Your task to perform on an android device: Is it going to rain tomorrow? Image 0: 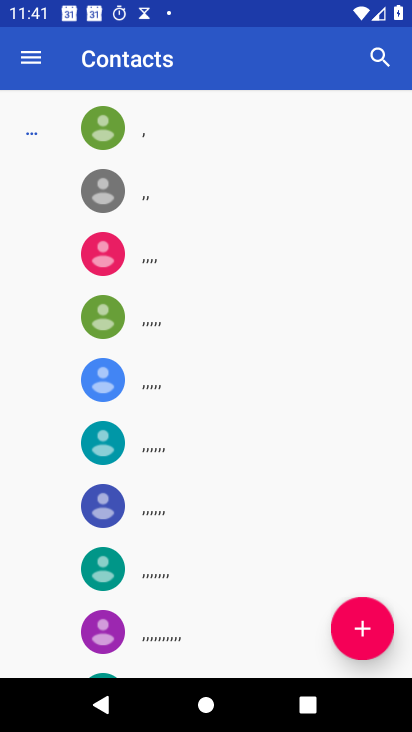
Step 0: press home button
Your task to perform on an android device: Is it going to rain tomorrow? Image 1: 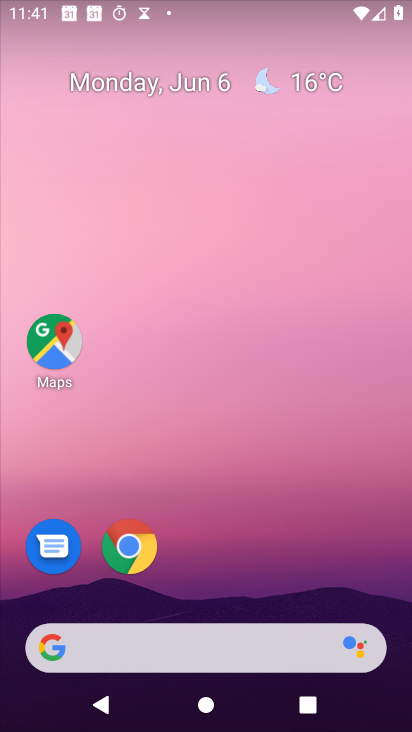
Step 1: click (291, 84)
Your task to perform on an android device: Is it going to rain tomorrow? Image 2: 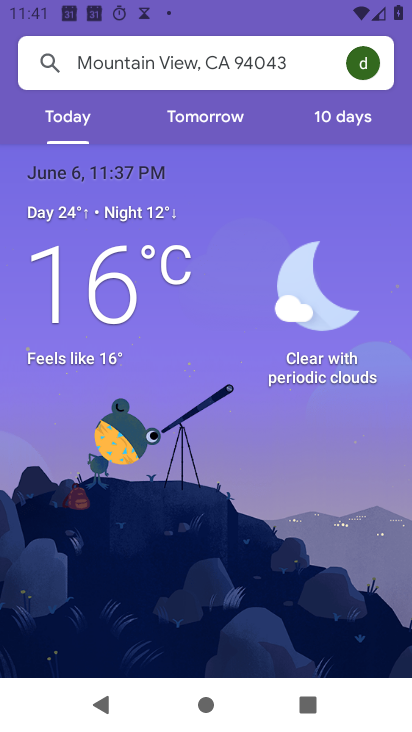
Step 2: click (191, 126)
Your task to perform on an android device: Is it going to rain tomorrow? Image 3: 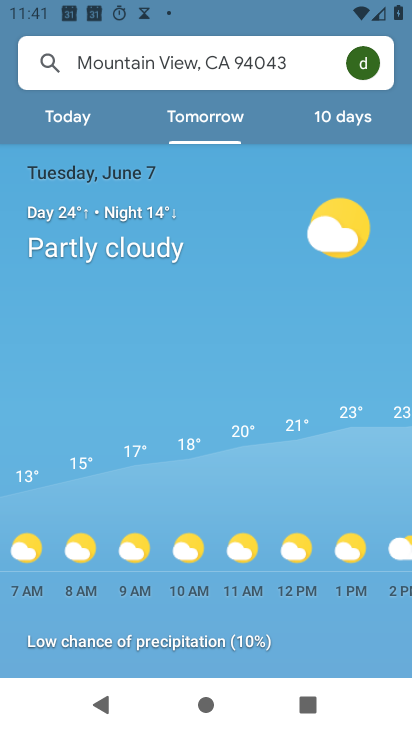
Step 3: task complete